Your task to perform on an android device: find photos in the google photos app Image 0: 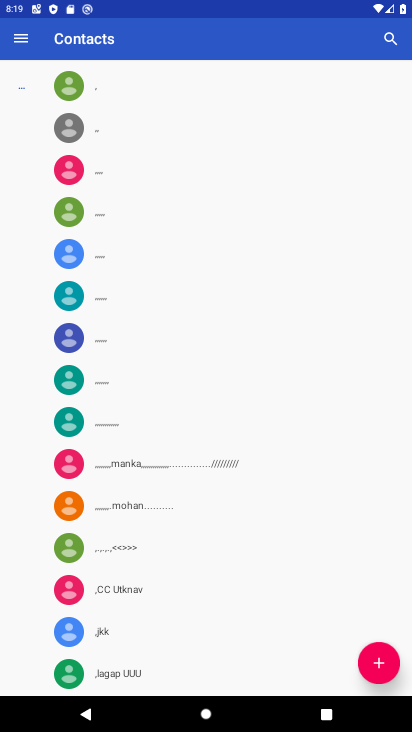
Step 0: press home button
Your task to perform on an android device: find photos in the google photos app Image 1: 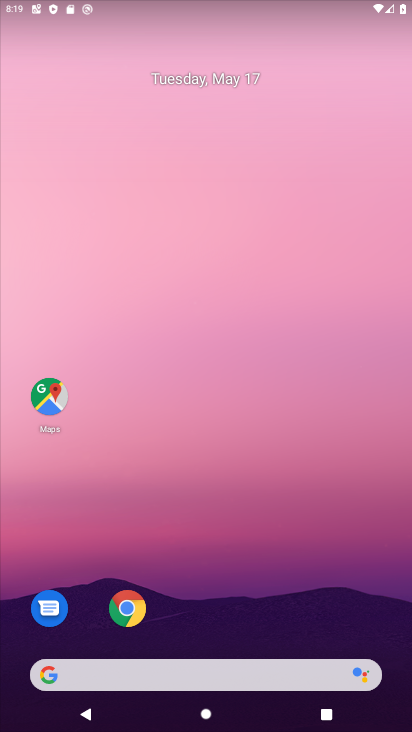
Step 1: drag from (238, 613) to (247, 51)
Your task to perform on an android device: find photos in the google photos app Image 2: 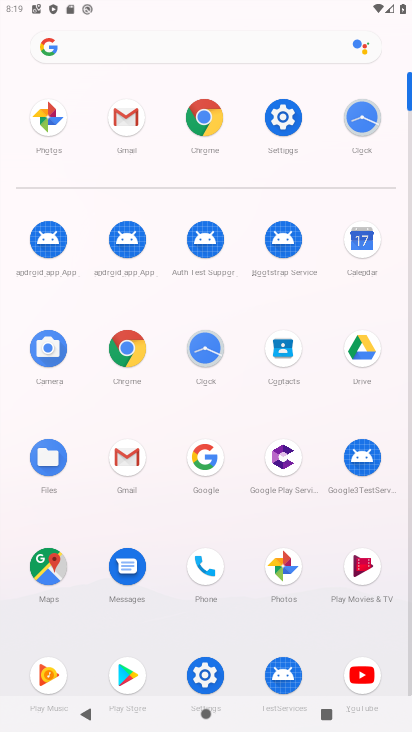
Step 2: click (48, 119)
Your task to perform on an android device: find photos in the google photos app Image 3: 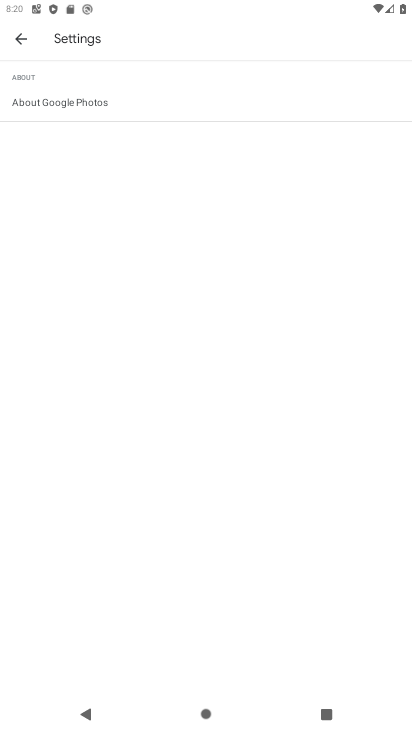
Step 3: click (17, 48)
Your task to perform on an android device: find photos in the google photos app Image 4: 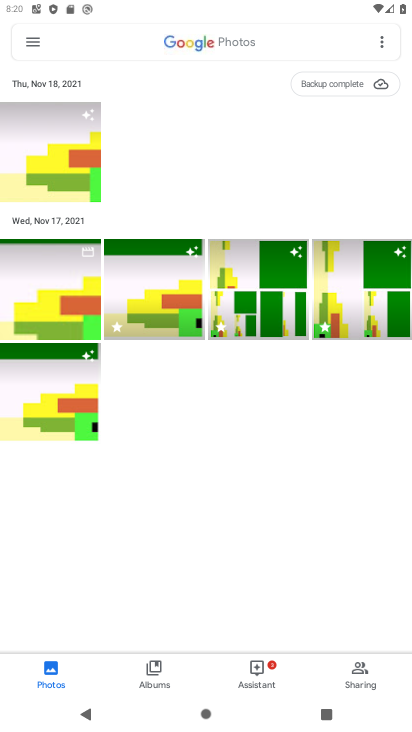
Step 4: task complete